Your task to perform on an android device: Search for Italian restaurants on Maps Image 0: 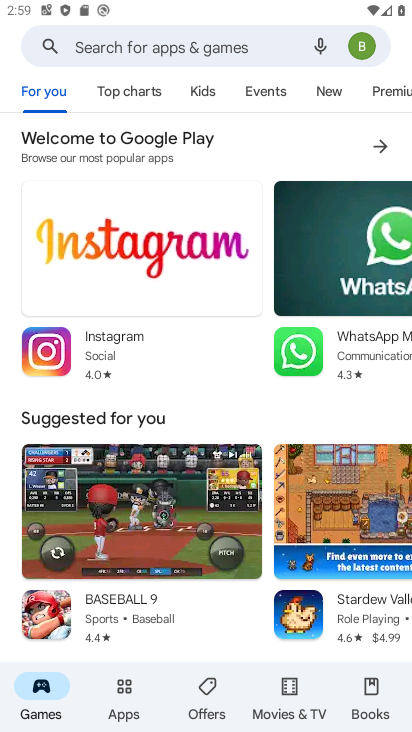
Step 0: click (188, 55)
Your task to perform on an android device: Search for Italian restaurants on Maps Image 1: 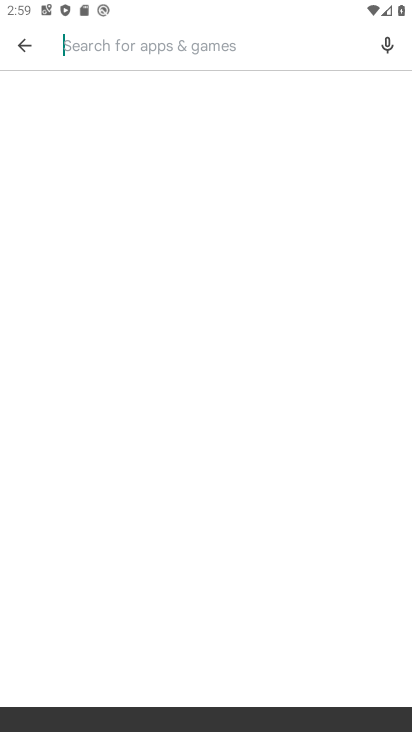
Step 1: click (128, 46)
Your task to perform on an android device: Search for Italian restaurants on Maps Image 2: 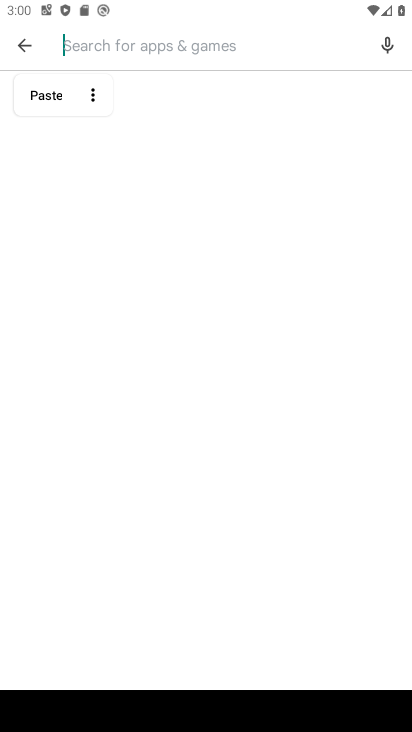
Step 2: type "italian restaurants"
Your task to perform on an android device: Search for Italian restaurants on Maps Image 3: 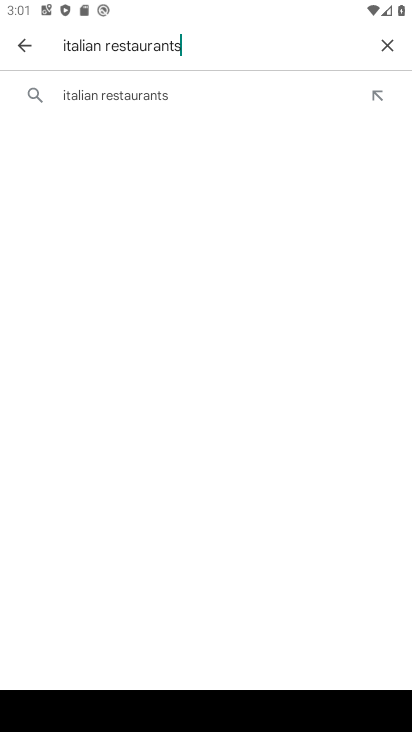
Step 3: drag from (361, 96) to (395, 87)
Your task to perform on an android device: Search for Italian restaurants on Maps Image 4: 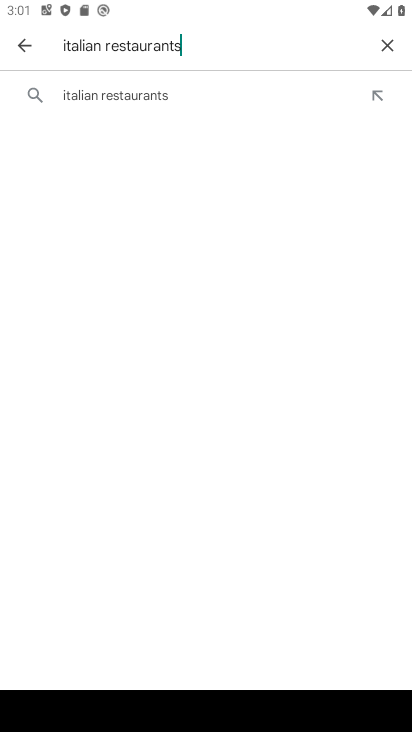
Step 4: click (381, 89)
Your task to perform on an android device: Search for Italian restaurants on Maps Image 5: 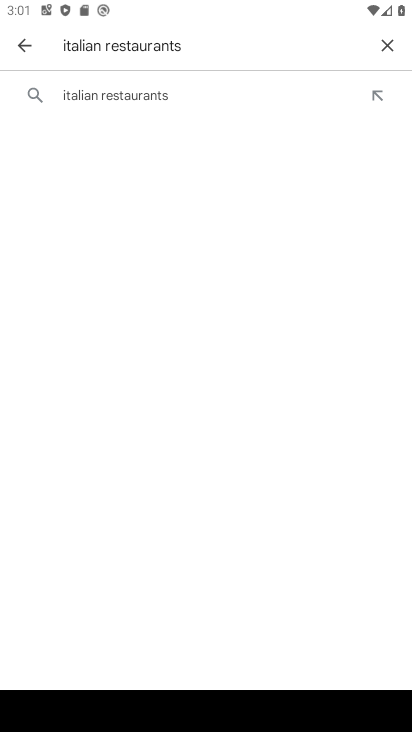
Step 5: click (99, 83)
Your task to perform on an android device: Search for Italian restaurants on Maps Image 6: 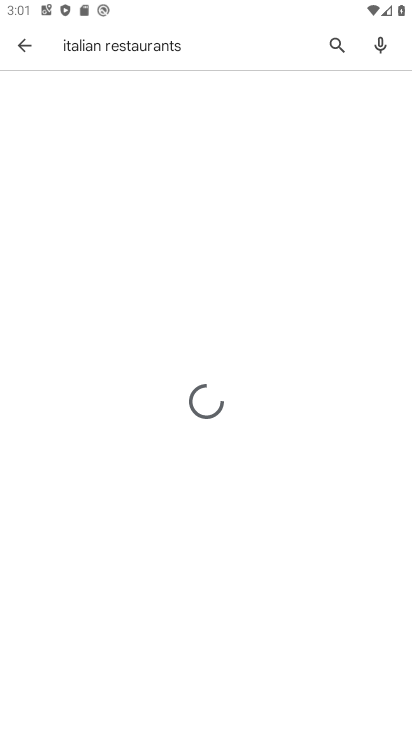
Step 6: click (142, 93)
Your task to perform on an android device: Search for Italian restaurants on Maps Image 7: 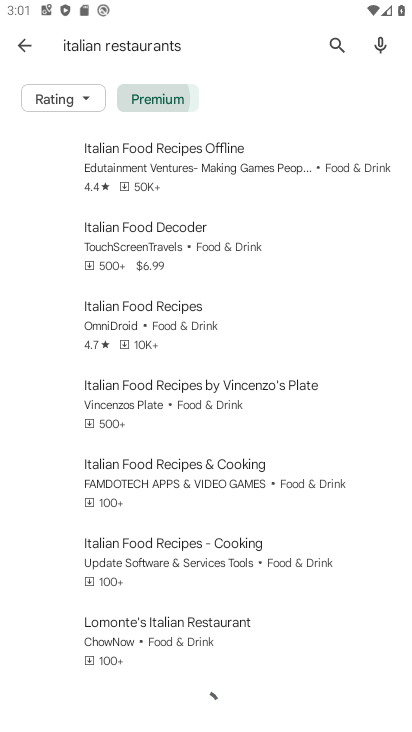
Step 7: click (367, 83)
Your task to perform on an android device: Search for Italian restaurants on Maps Image 8: 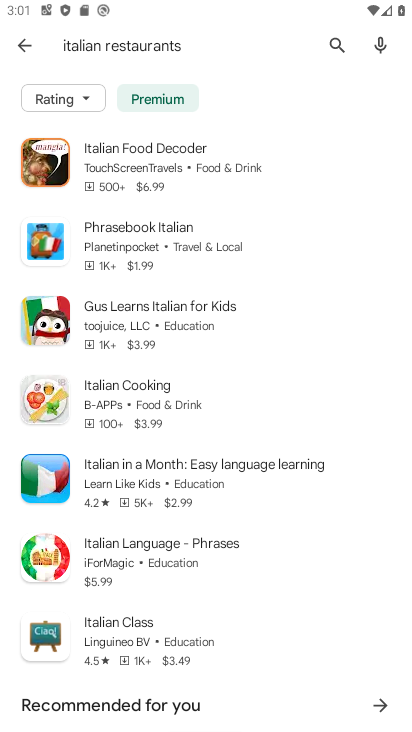
Step 8: task complete